Your task to perform on an android device: Check the weather Image 0: 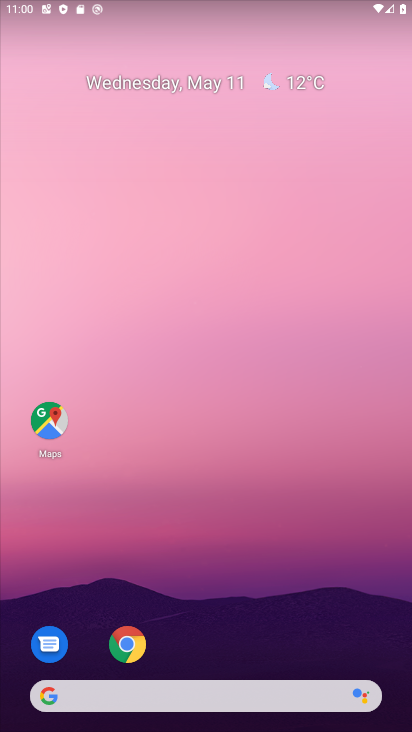
Step 0: drag from (299, 617) to (325, 64)
Your task to perform on an android device: Check the weather Image 1: 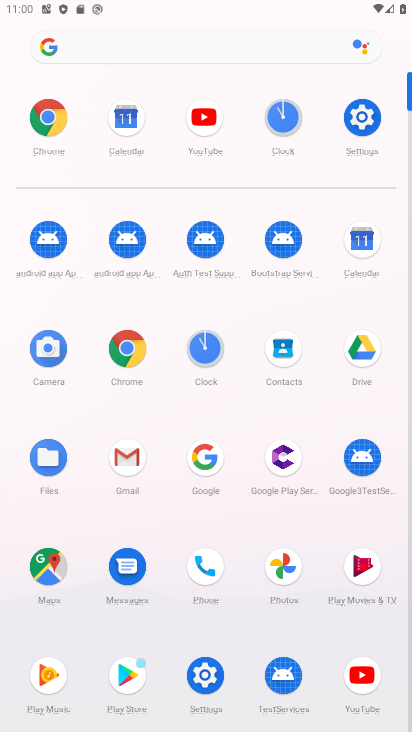
Step 1: click (205, 55)
Your task to perform on an android device: Check the weather Image 2: 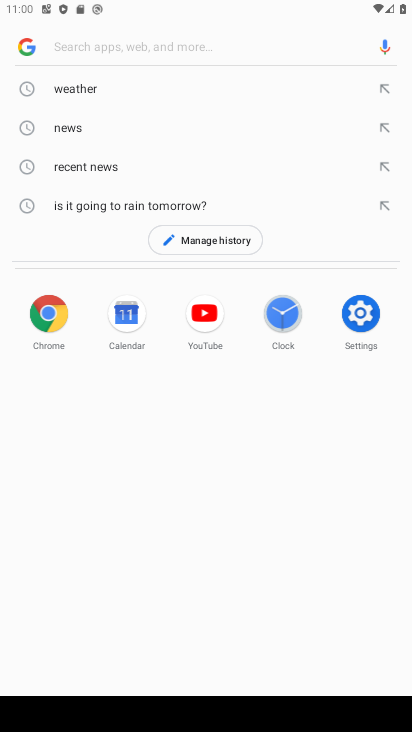
Step 2: click (142, 99)
Your task to perform on an android device: Check the weather Image 3: 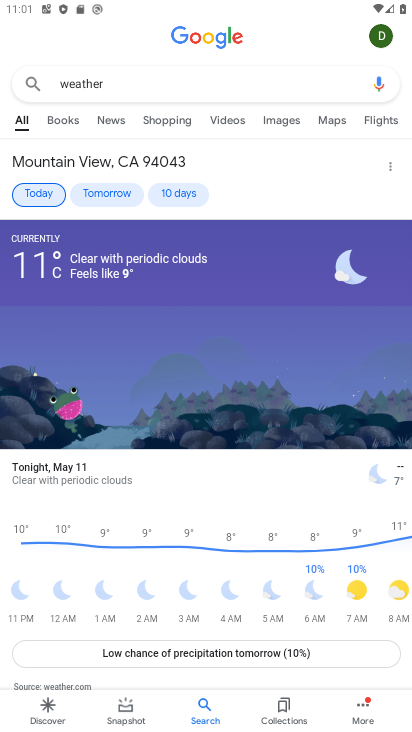
Step 3: task complete